Your task to perform on an android device: Go to accessibility settings Image 0: 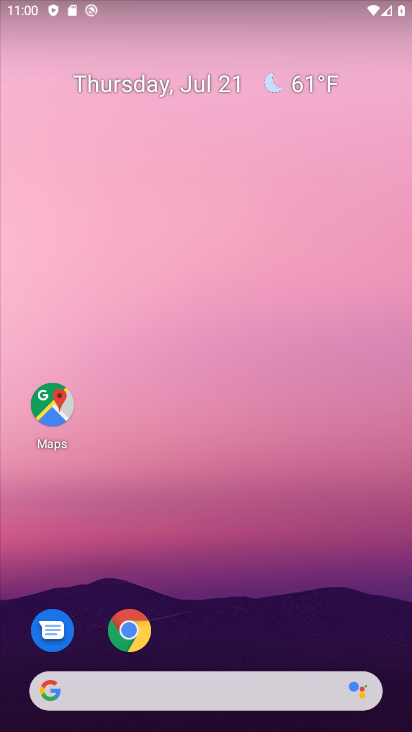
Step 0: drag from (158, 645) to (231, 212)
Your task to perform on an android device: Go to accessibility settings Image 1: 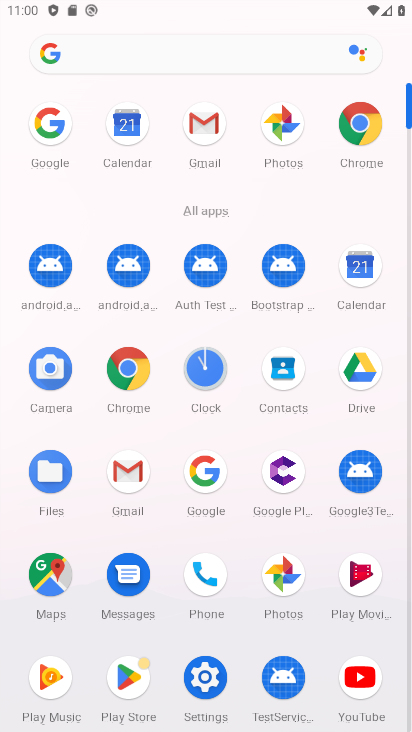
Step 1: click (196, 685)
Your task to perform on an android device: Go to accessibility settings Image 2: 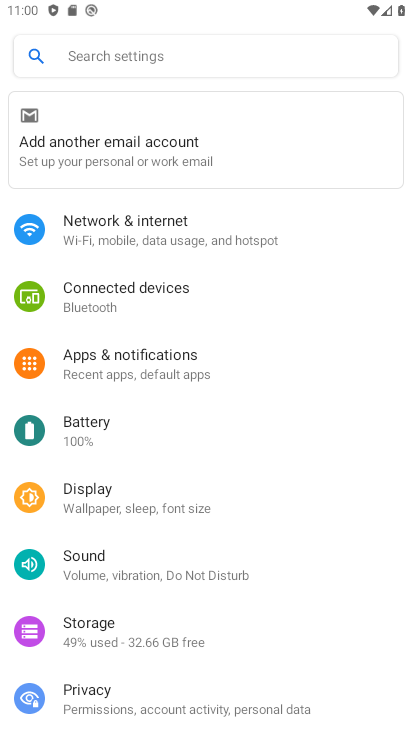
Step 2: drag from (98, 706) to (140, 151)
Your task to perform on an android device: Go to accessibility settings Image 3: 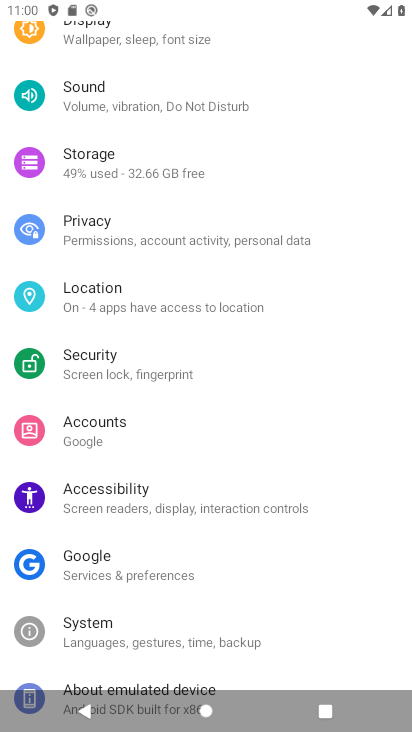
Step 3: click (67, 498)
Your task to perform on an android device: Go to accessibility settings Image 4: 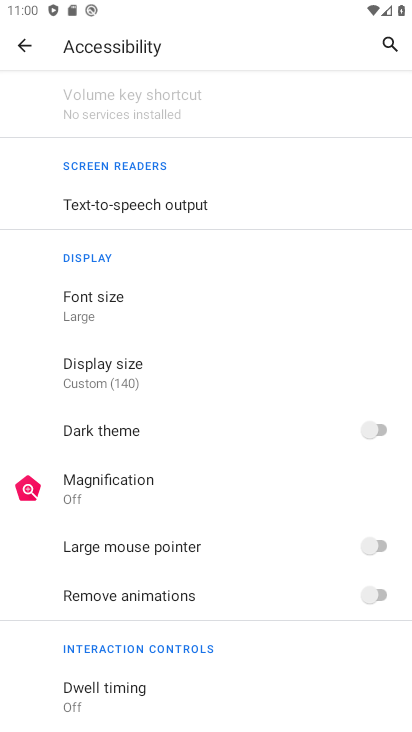
Step 4: task complete